Your task to perform on an android device: Search for seafood restaurants on Google Maps Image 0: 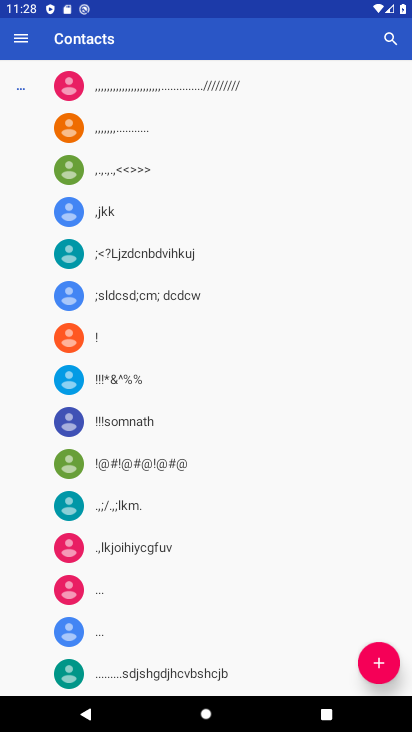
Step 0: press home button
Your task to perform on an android device: Search for seafood restaurants on Google Maps Image 1: 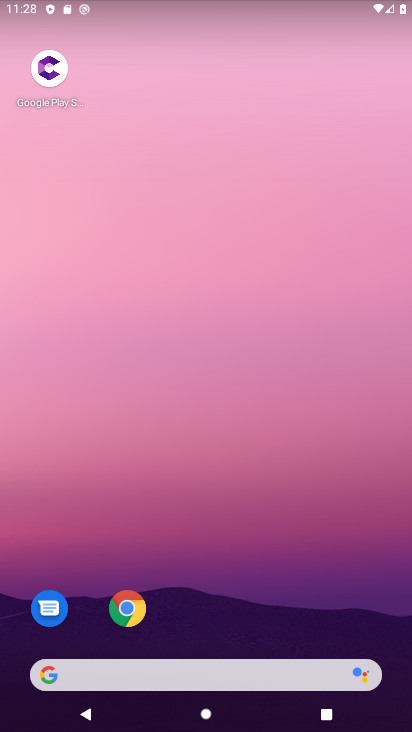
Step 1: drag from (351, 446) to (364, 114)
Your task to perform on an android device: Search for seafood restaurants on Google Maps Image 2: 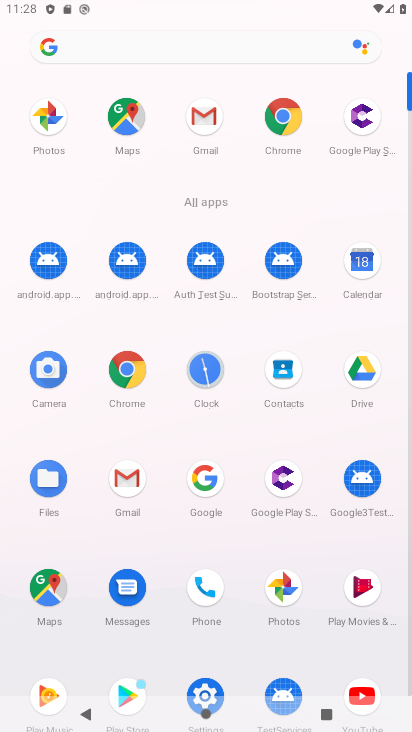
Step 2: click (52, 588)
Your task to perform on an android device: Search for seafood restaurants on Google Maps Image 3: 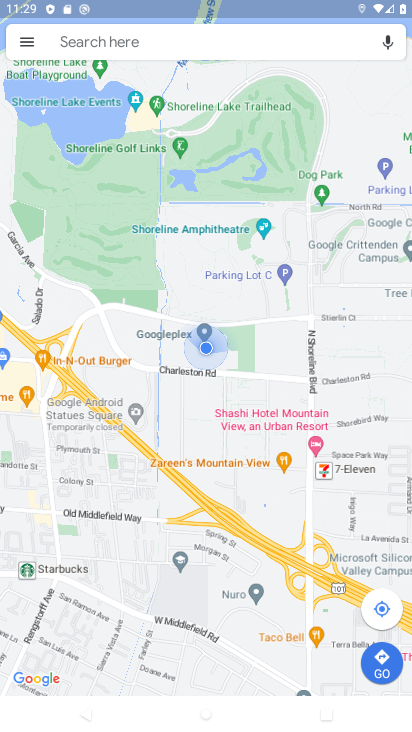
Step 3: click (160, 36)
Your task to perform on an android device: Search for seafood restaurants on Google Maps Image 4: 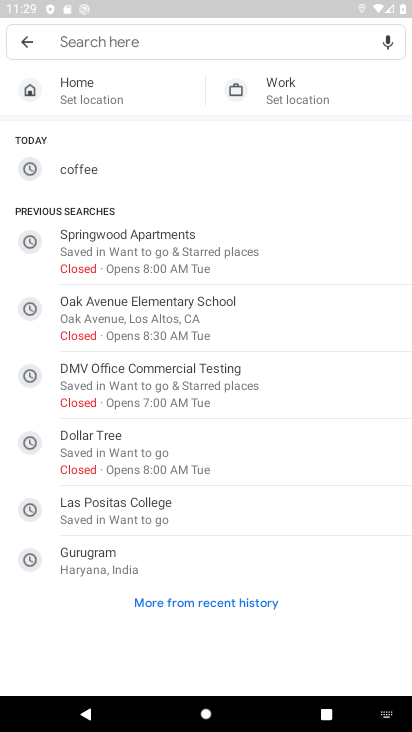
Step 4: type "seafood restaurants"
Your task to perform on an android device: Search for seafood restaurants on Google Maps Image 5: 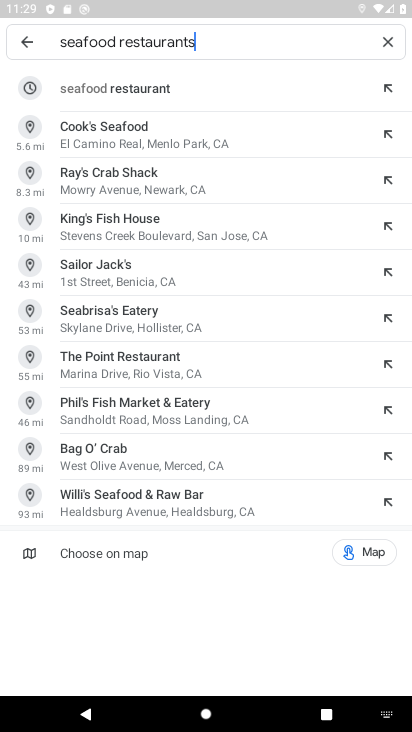
Step 5: press enter
Your task to perform on an android device: Search for seafood restaurants on Google Maps Image 6: 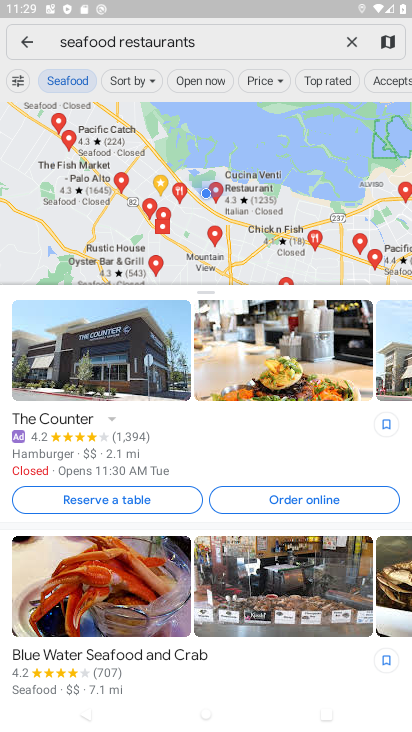
Step 6: task complete